Your task to perform on an android device: change alarm snooze length Image 0: 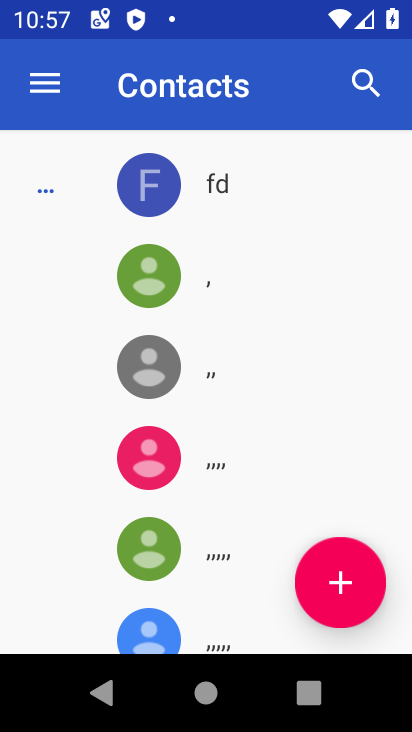
Step 0: press home button
Your task to perform on an android device: change alarm snooze length Image 1: 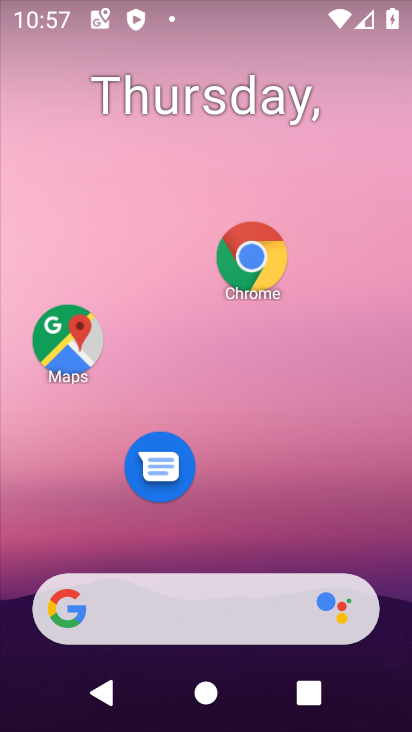
Step 1: drag from (308, 317) to (367, 145)
Your task to perform on an android device: change alarm snooze length Image 2: 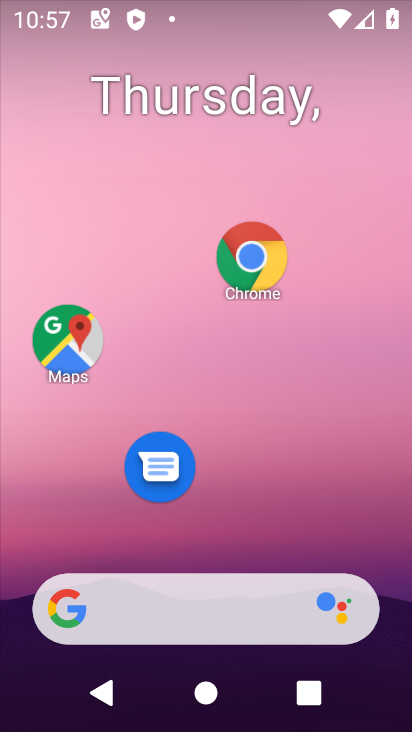
Step 2: drag from (263, 510) to (347, 164)
Your task to perform on an android device: change alarm snooze length Image 3: 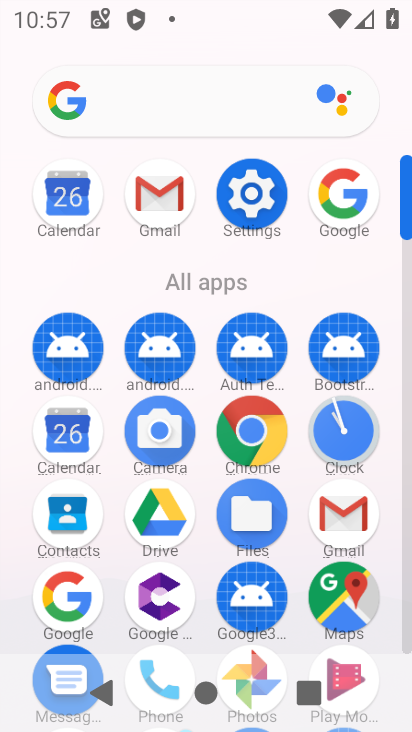
Step 3: click (346, 433)
Your task to perform on an android device: change alarm snooze length Image 4: 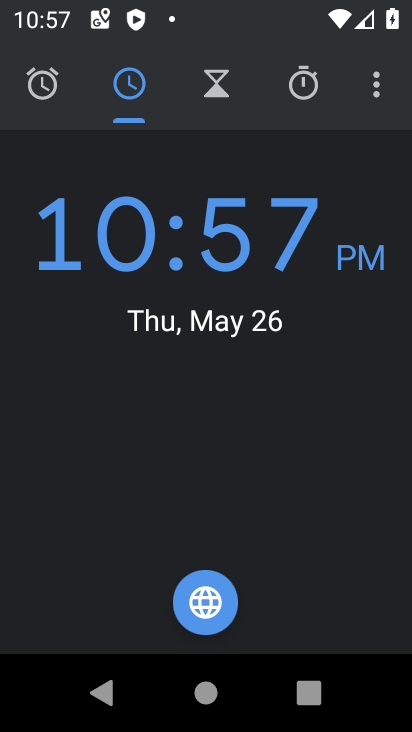
Step 4: click (376, 93)
Your task to perform on an android device: change alarm snooze length Image 5: 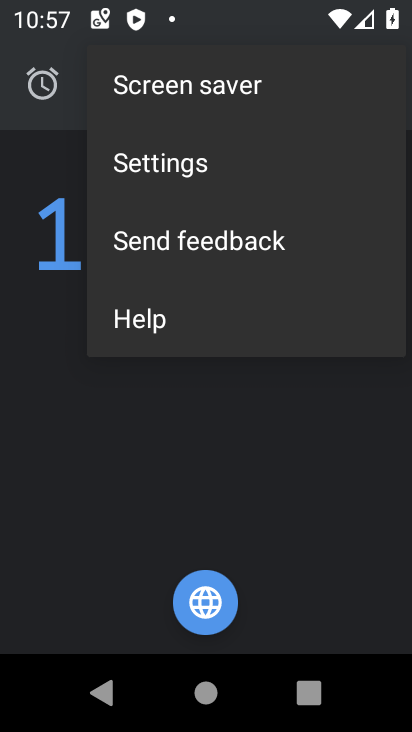
Step 5: click (247, 187)
Your task to perform on an android device: change alarm snooze length Image 6: 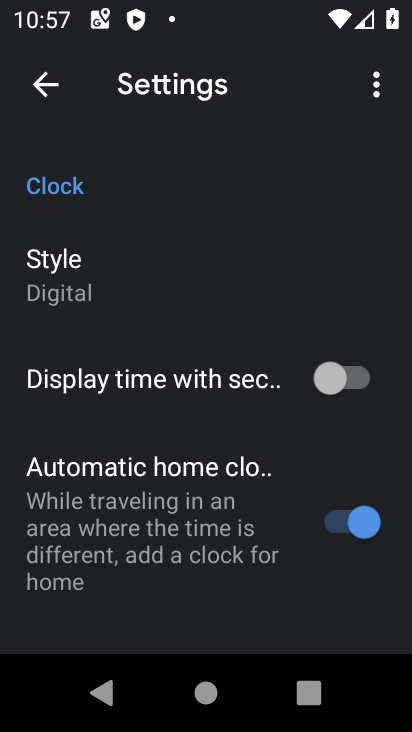
Step 6: drag from (130, 569) to (216, 148)
Your task to perform on an android device: change alarm snooze length Image 7: 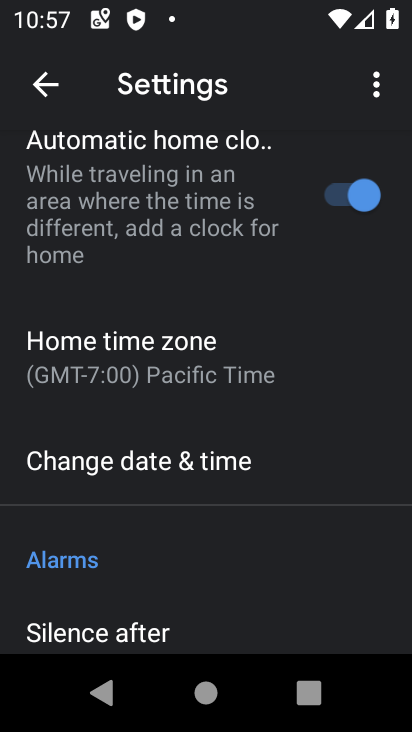
Step 7: drag from (129, 516) to (270, 124)
Your task to perform on an android device: change alarm snooze length Image 8: 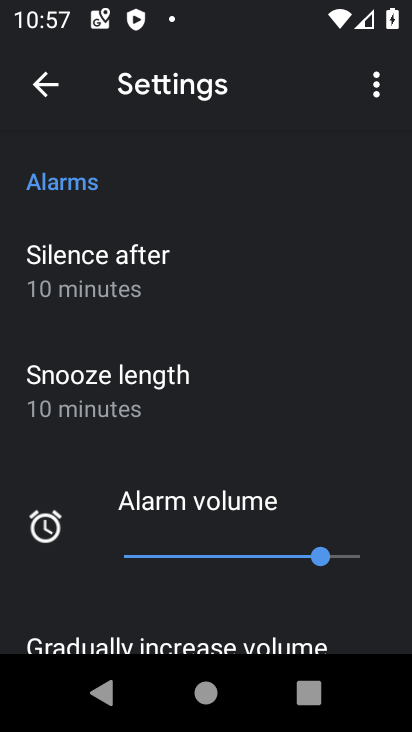
Step 8: drag from (127, 579) to (233, 137)
Your task to perform on an android device: change alarm snooze length Image 9: 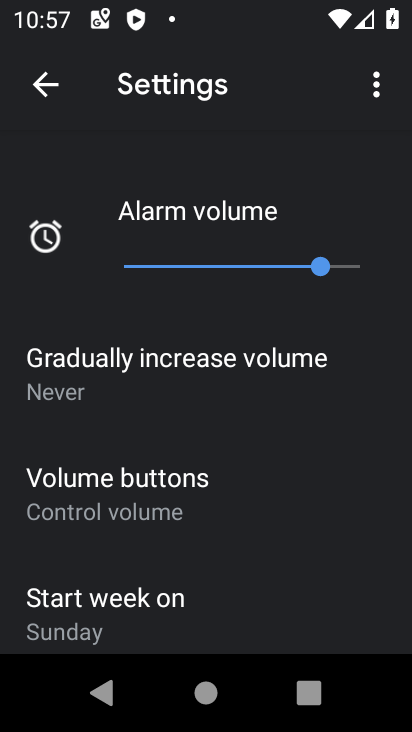
Step 9: drag from (136, 556) to (264, 199)
Your task to perform on an android device: change alarm snooze length Image 10: 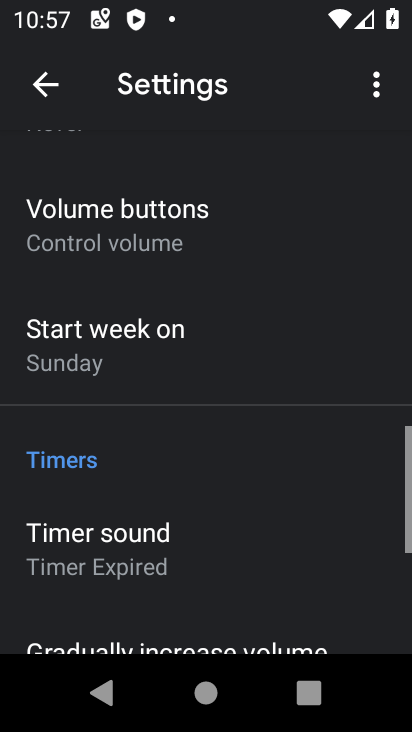
Step 10: drag from (136, 552) to (258, 701)
Your task to perform on an android device: change alarm snooze length Image 11: 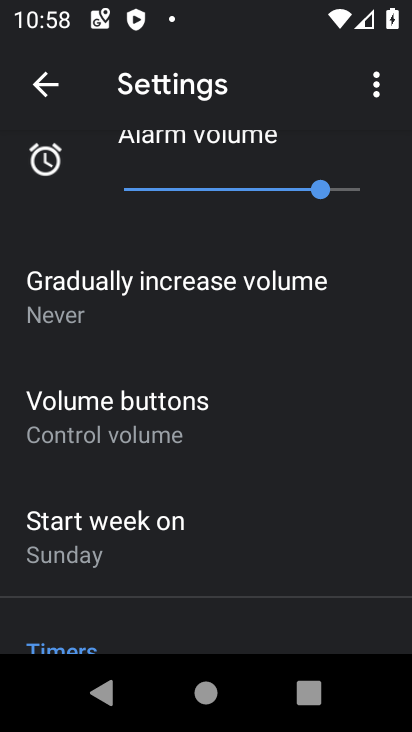
Step 11: drag from (276, 250) to (258, 567)
Your task to perform on an android device: change alarm snooze length Image 12: 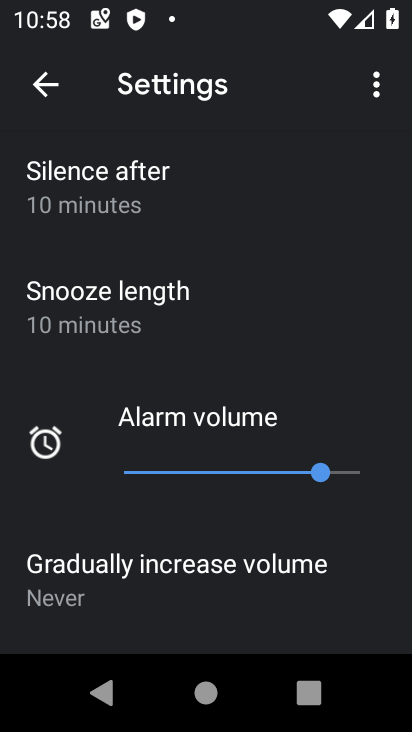
Step 12: click (174, 322)
Your task to perform on an android device: change alarm snooze length Image 13: 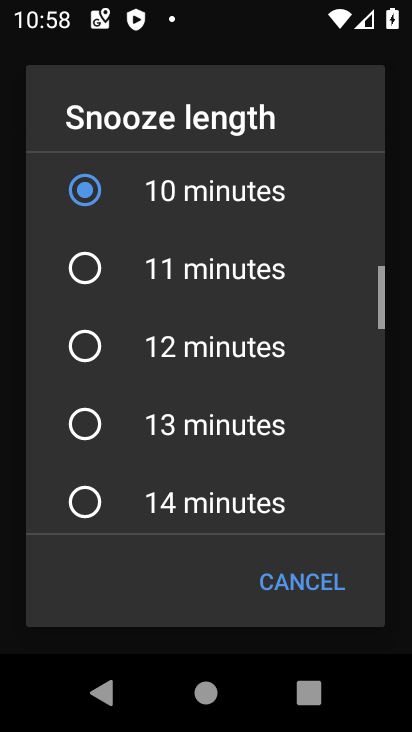
Step 13: click (180, 291)
Your task to perform on an android device: change alarm snooze length Image 14: 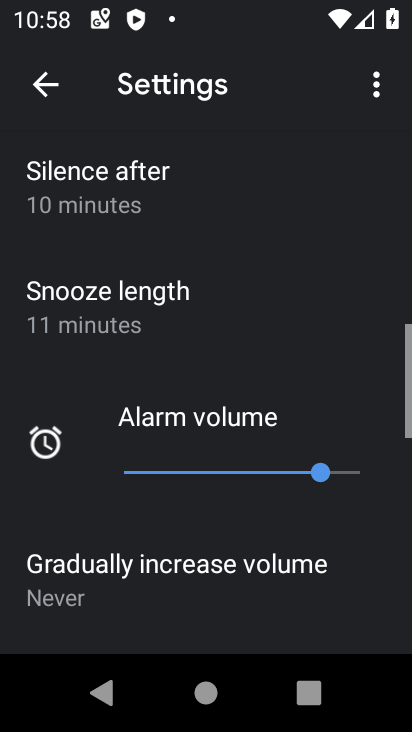
Step 14: task complete